Your task to perform on an android device: change timer sound Image 0: 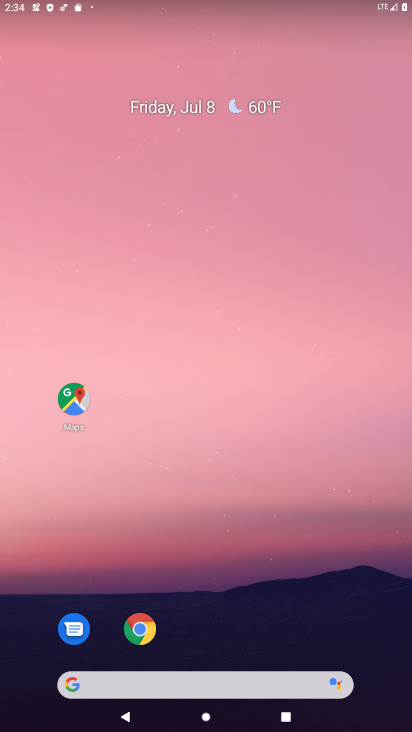
Step 0: drag from (211, 620) to (202, 200)
Your task to perform on an android device: change timer sound Image 1: 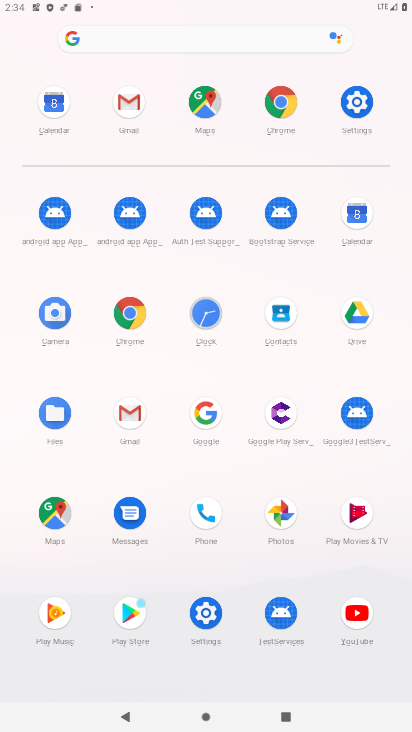
Step 1: click (218, 318)
Your task to perform on an android device: change timer sound Image 2: 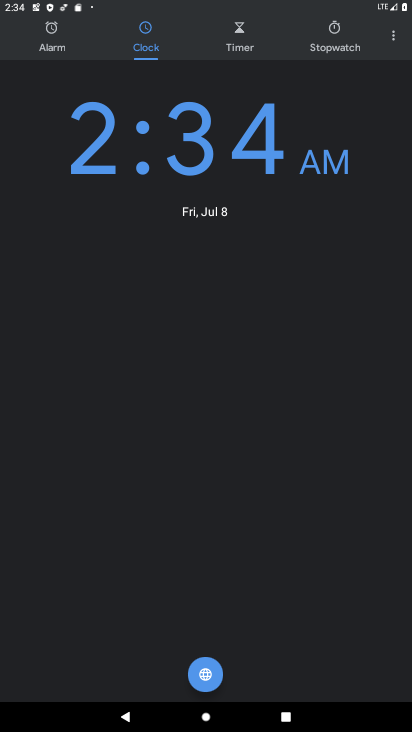
Step 2: click (388, 40)
Your task to perform on an android device: change timer sound Image 3: 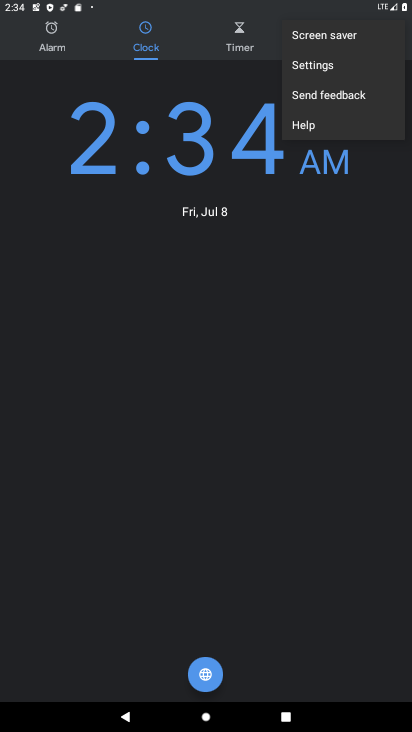
Step 3: click (358, 74)
Your task to perform on an android device: change timer sound Image 4: 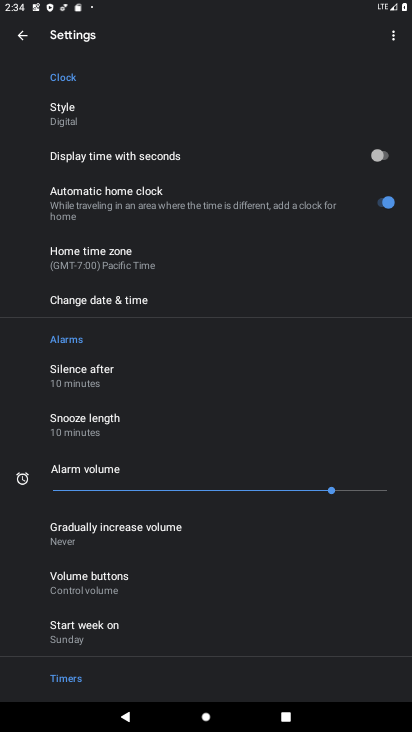
Step 4: drag from (175, 581) to (158, 356)
Your task to perform on an android device: change timer sound Image 5: 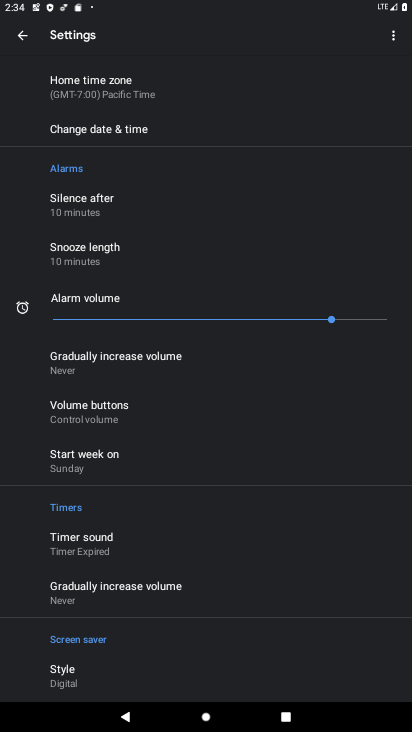
Step 5: click (97, 547)
Your task to perform on an android device: change timer sound Image 6: 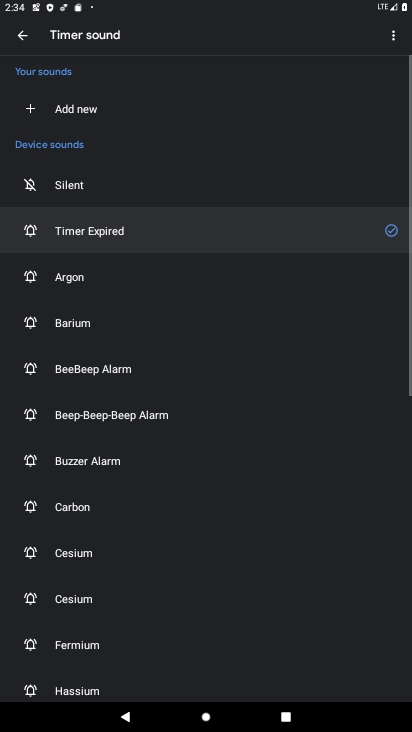
Step 6: click (94, 458)
Your task to perform on an android device: change timer sound Image 7: 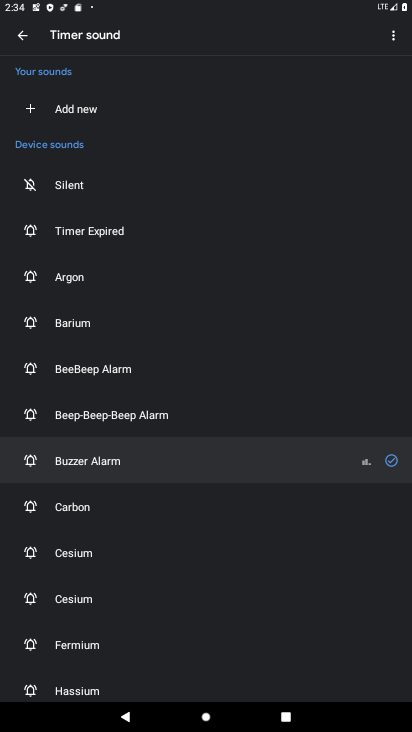
Step 7: task complete